Your task to perform on an android device: Open Chrome and go to settings Image 0: 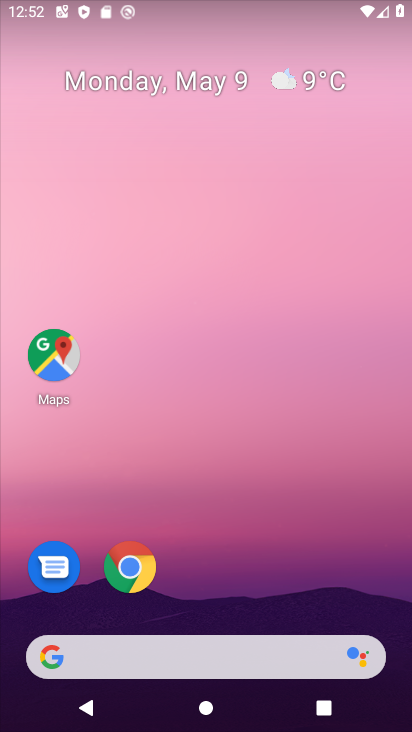
Step 0: drag from (274, 677) to (290, 246)
Your task to perform on an android device: Open Chrome and go to settings Image 1: 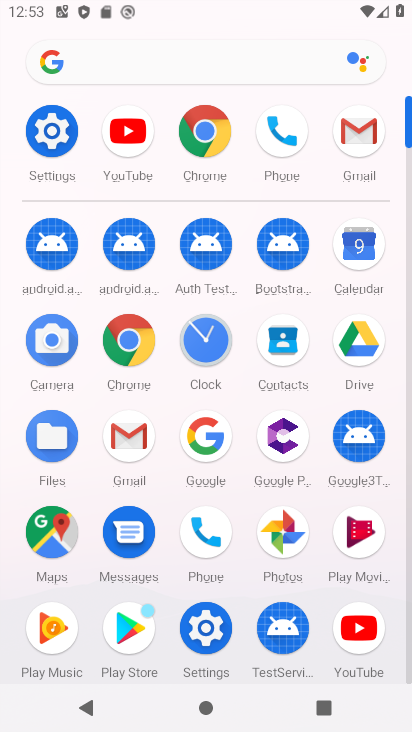
Step 1: click (213, 630)
Your task to perform on an android device: Open Chrome and go to settings Image 2: 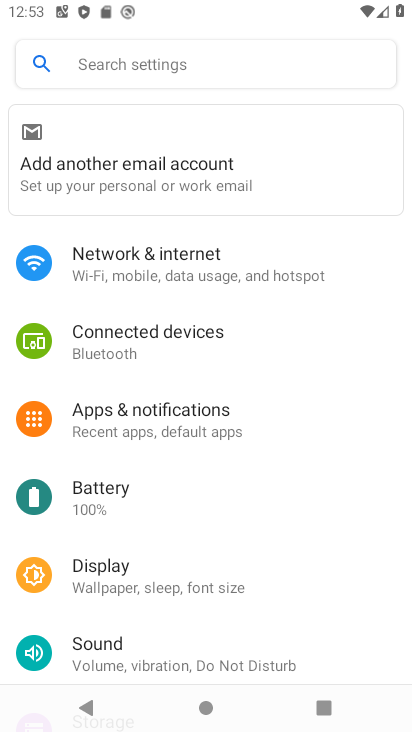
Step 2: press home button
Your task to perform on an android device: Open Chrome and go to settings Image 3: 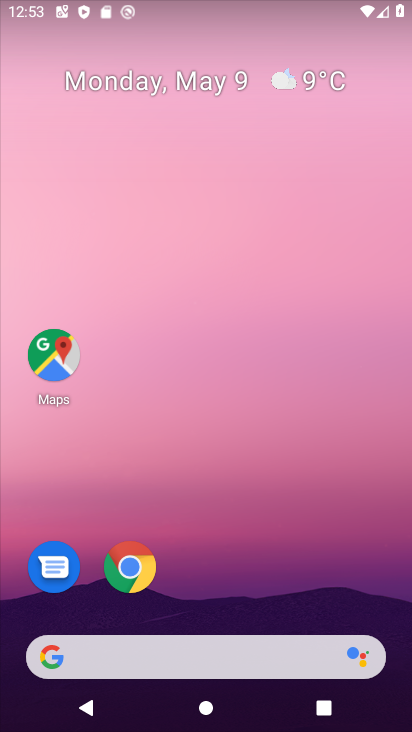
Step 3: click (314, 222)
Your task to perform on an android device: Open Chrome and go to settings Image 4: 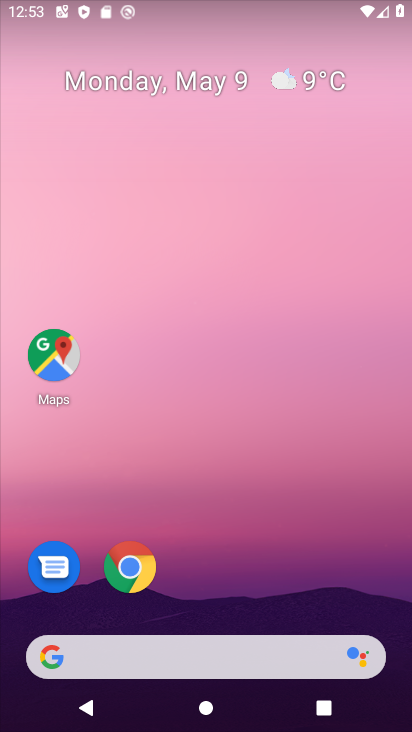
Step 4: drag from (276, 674) to (273, 124)
Your task to perform on an android device: Open Chrome and go to settings Image 5: 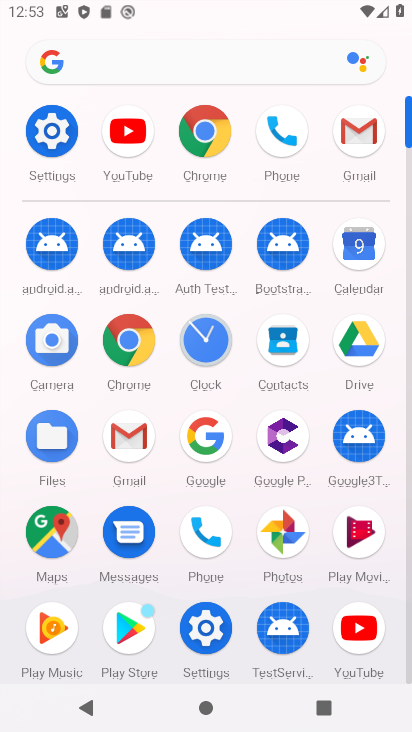
Step 5: click (205, 155)
Your task to perform on an android device: Open Chrome and go to settings Image 6: 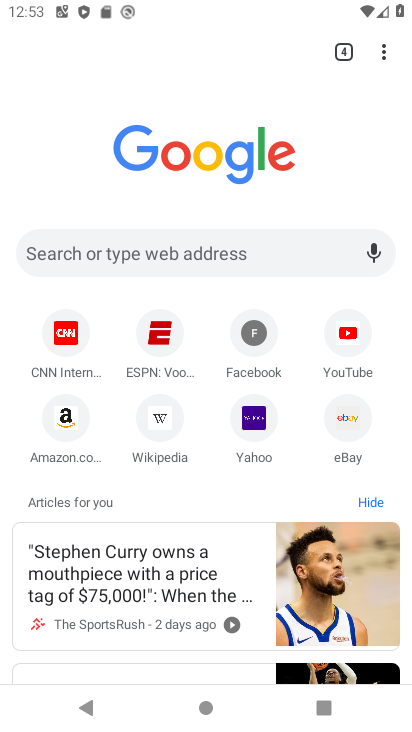
Step 6: click (376, 71)
Your task to perform on an android device: Open Chrome and go to settings Image 7: 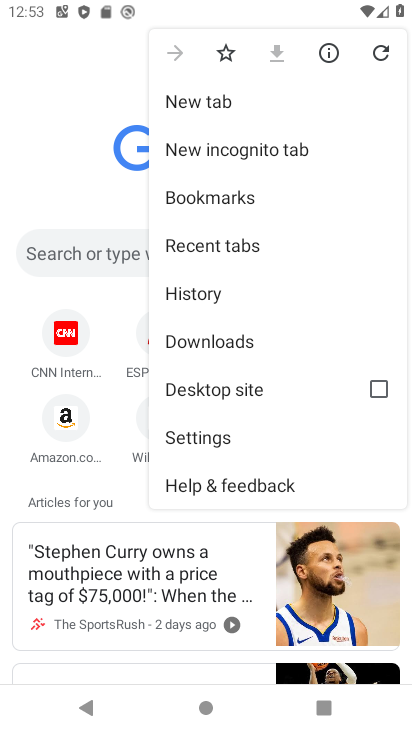
Step 7: click (218, 432)
Your task to perform on an android device: Open Chrome and go to settings Image 8: 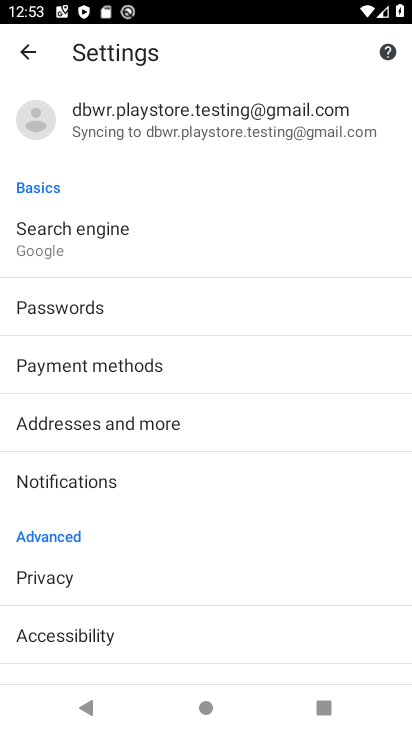
Step 8: task complete